Your task to perform on an android device: Open location settings Image 0: 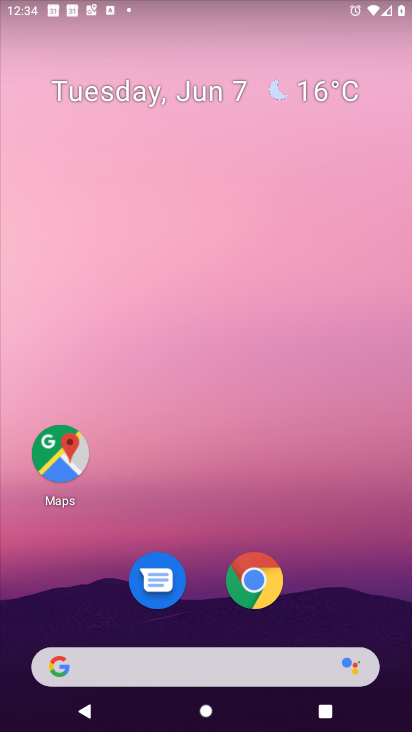
Step 0: drag from (358, 580) to (380, 36)
Your task to perform on an android device: Open location settings Image 1: 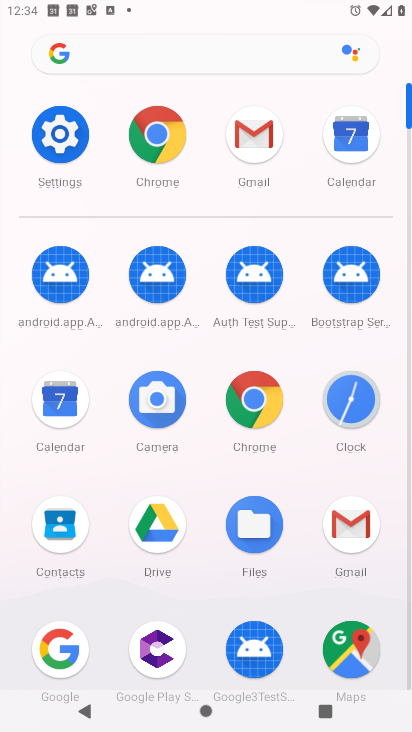
Step 1: click (48, 132)
Your task to perform on an android device: Open location settings Image 2: 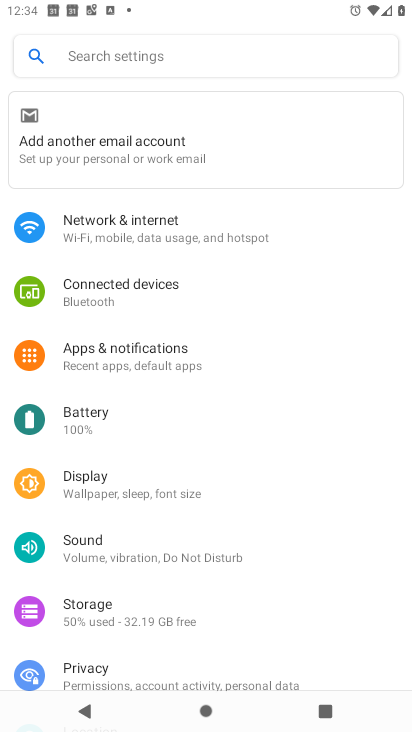
Step 2: drag from (138, 627) to (254, 148)
Your task to perform on an android device: Open location settings Image 3: 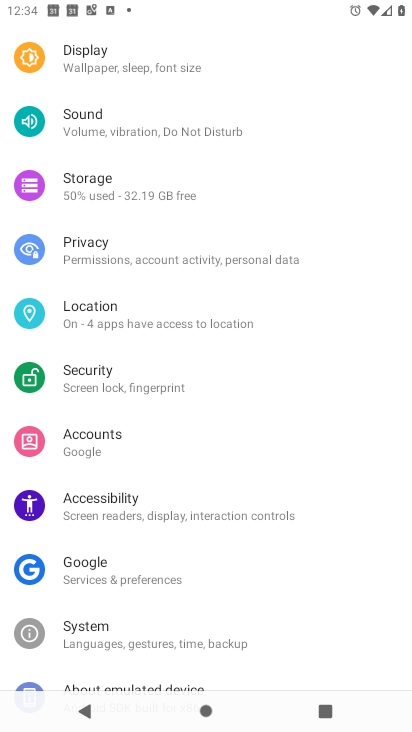
Step 3: click (101, 320)
Your task to perform on an android device: Open location settings Image 4: 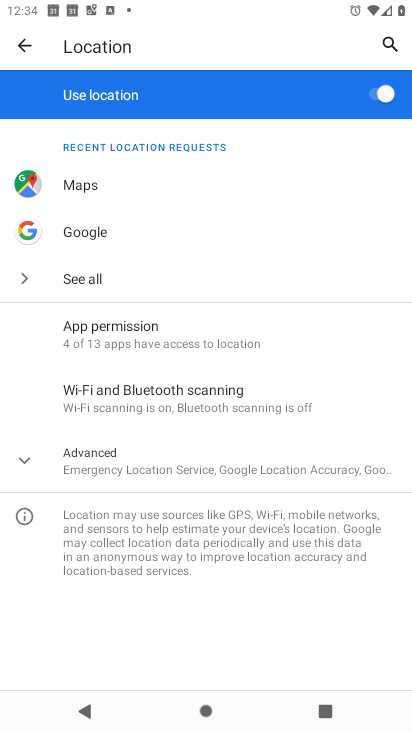
Step 4: task complete